Your task to perform on an android device: Open settings Image 0: 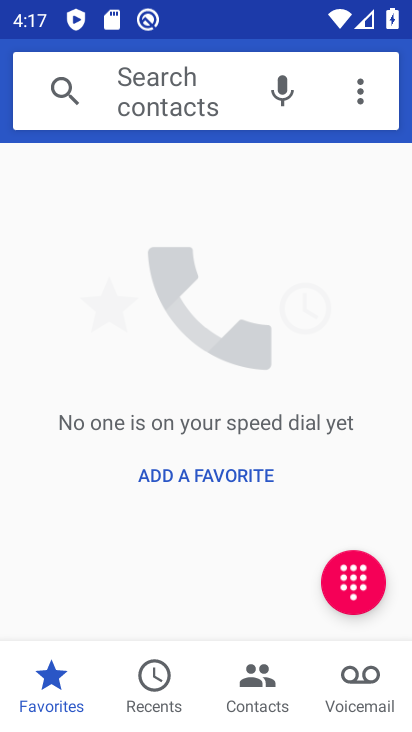
Step 0: press home button
Your task to perform on an android device: Open settings Image 1: 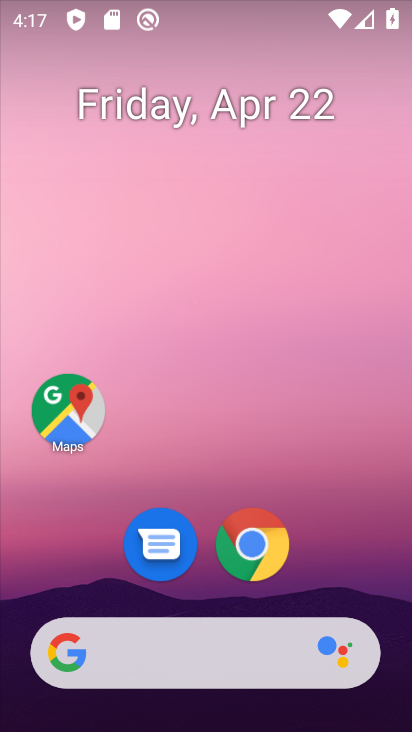
Step 1: drag from (194, 589) to (234, 314)
Your task to perform on an android device: Open settings Image 2: 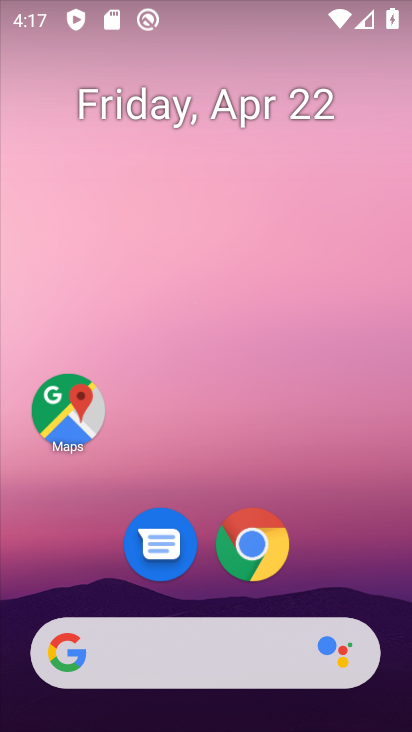
Step 2: drag from (200, 620) to (264, 247)
Your task to perform on an android device: Open settings Image 3: 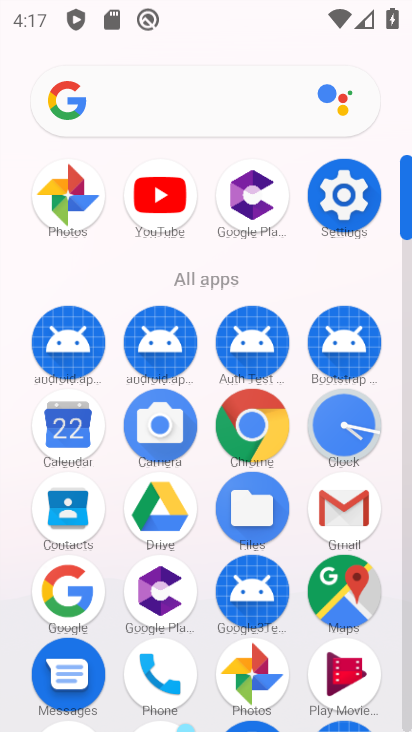
Step 3: click (353, 205)
Your task to perform on an android device: Open settings Image 4: 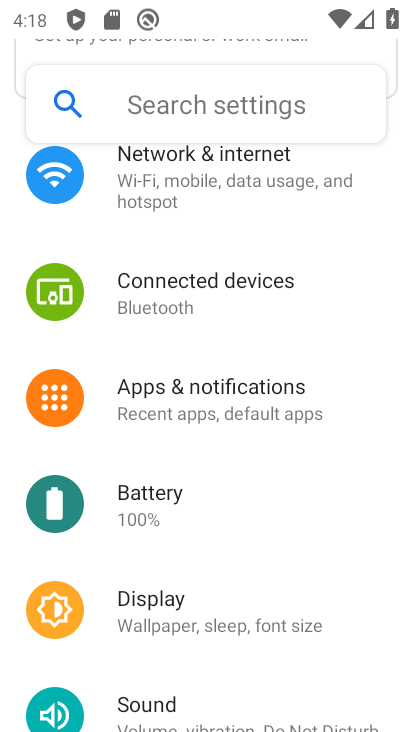
Step 4: task complete